Your task to perform on an android device: Search for vegetarian restaurants on Maps Image 0: 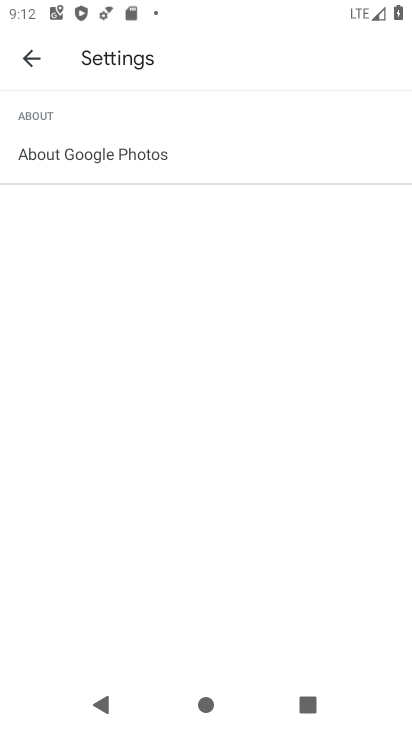
Step 0: press home button
Your task to perform on an android device: Search for vegetarian restaurants on Maps Image 1: 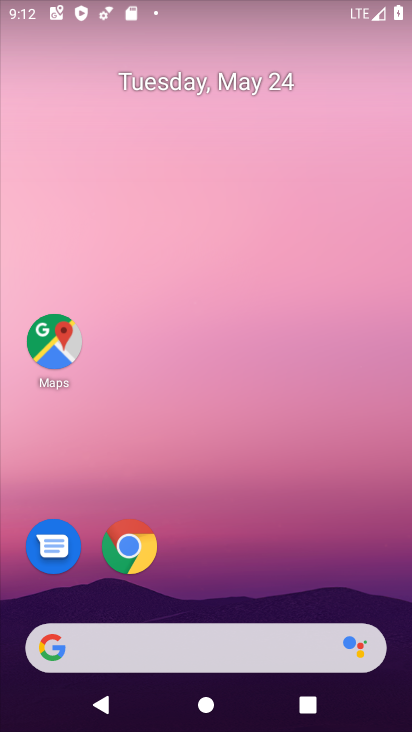
Step 1: click (55, 345)
Your task to perform on an android device: Search for vegetarian restaurants on Maps Image 2: 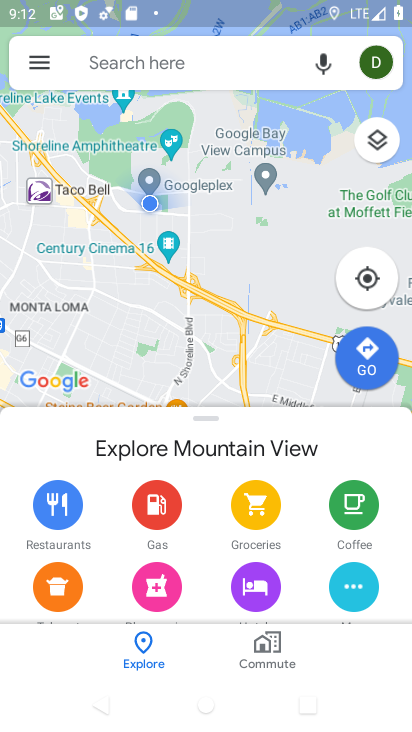
Step 2: click (207, 64)
Your task to perform on an android device: Search for vegetarian restaurants on Maps Image 3: 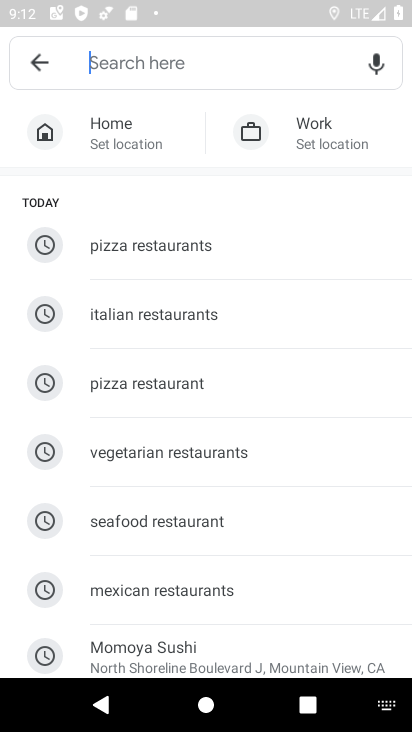
Step 3: click (164, 460)
Your task to perform on an android device: Search for vegetarian restaurants on Maps Image 4: 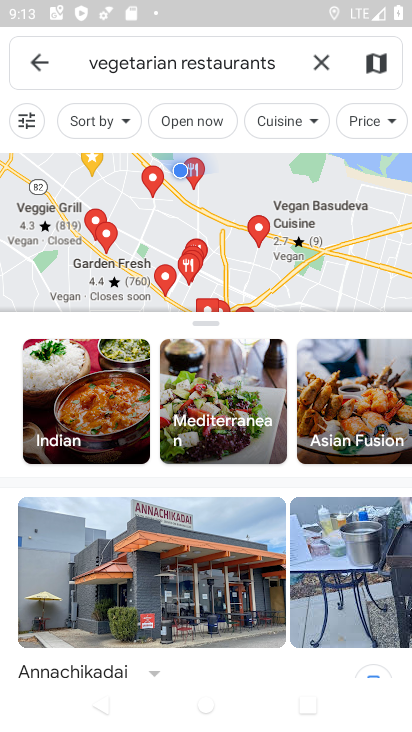
Step 4: task complete